Your task to perform on an android device: turn on the 12-hour format for clock Image 0: 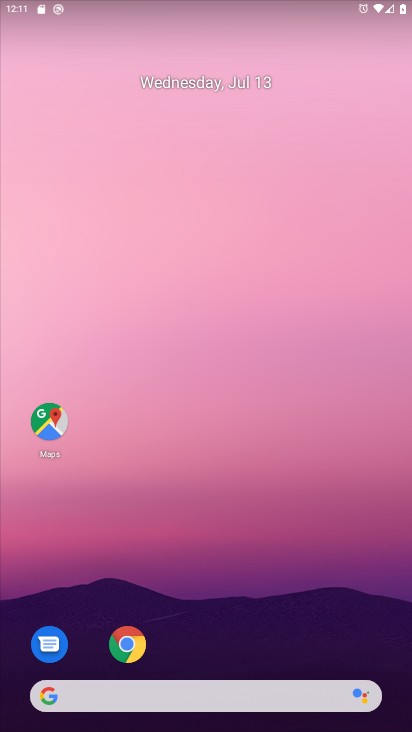
Step 0: drag from (282, 711) to (193, 302)
Your task to perform on an android device: turn on the 12-hour format for clock Image 1: 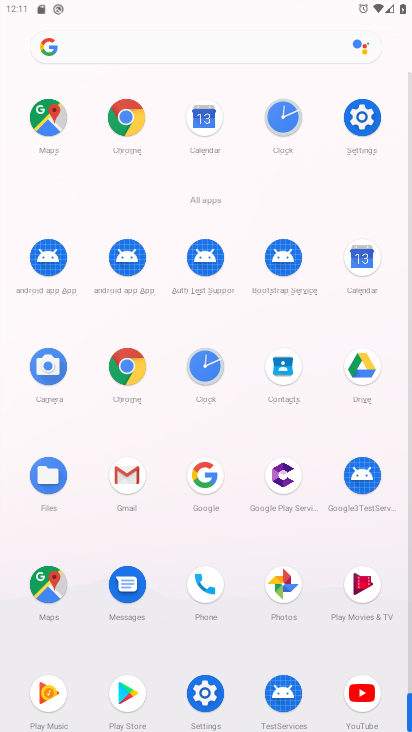
Step 1: click (203, 365)
Your task to perform on an android device: turn on the 12-hour format for clock Image 2: 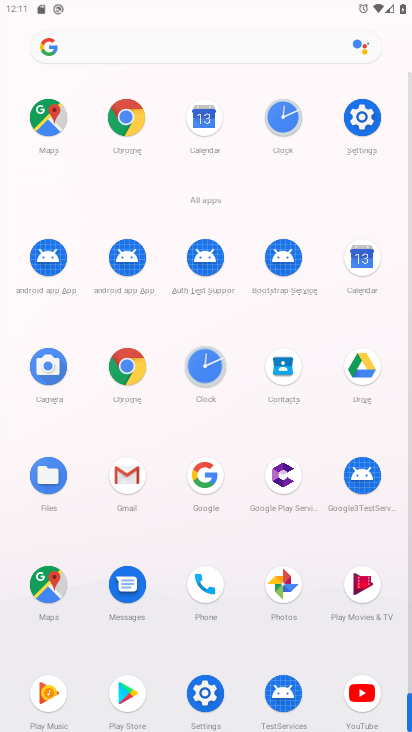
Step 2: click (203, 365)
Your task to perform on an android device: turn on the 12-hour format for clock Image 3: 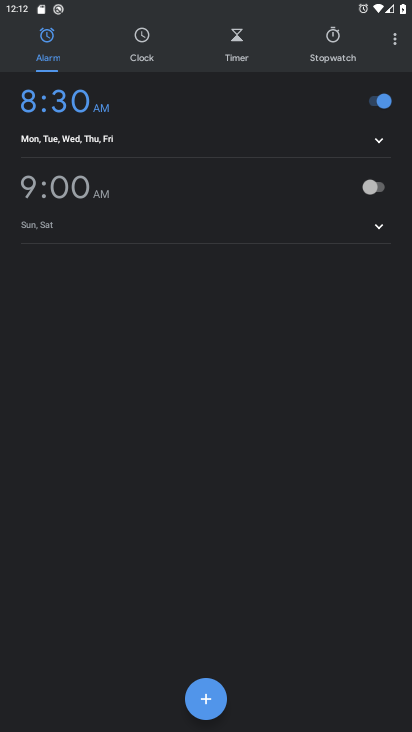
Step 3: click (390, 36)
Your task to perform on an android device: turn on the 12-hour format for clock Image 4: 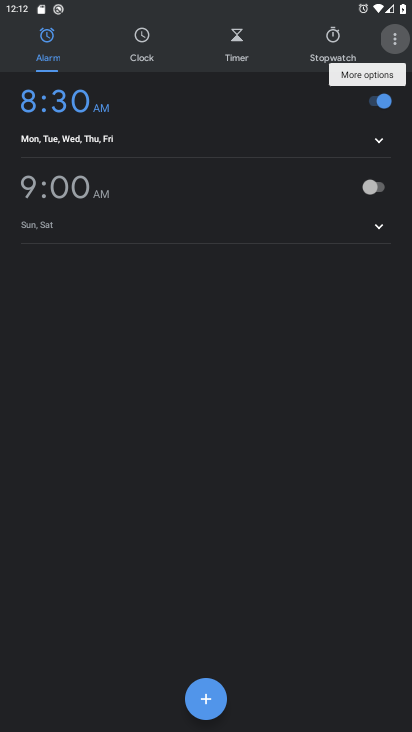
Step 4: click (394, 39)
Your task to perform on an android device: turn on the 12-hour format for clock Image 5: 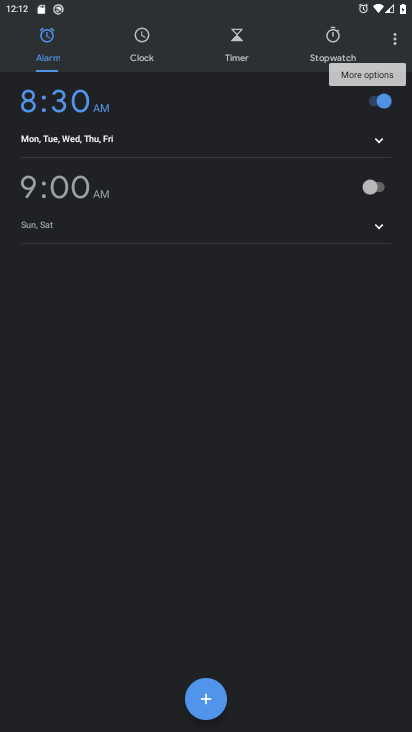
Step 5: click (394, 40)
Your task to perform on an android device: turn on the 12-hour format for clock Image 6: 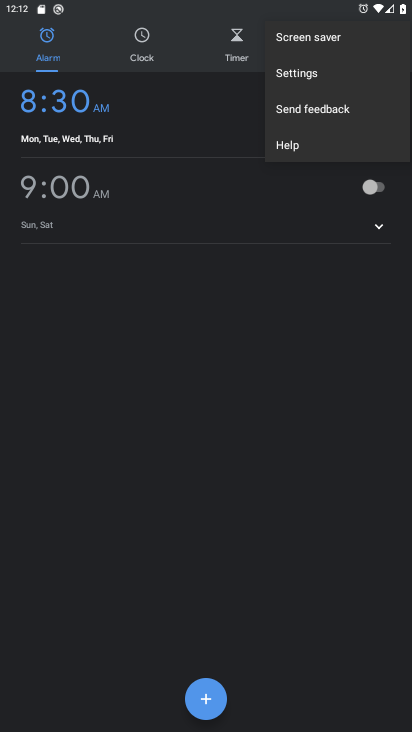
Step 6: click (394, 40)
Your task to perform on an android device: turn on the 12-hour format for clock Image 7: 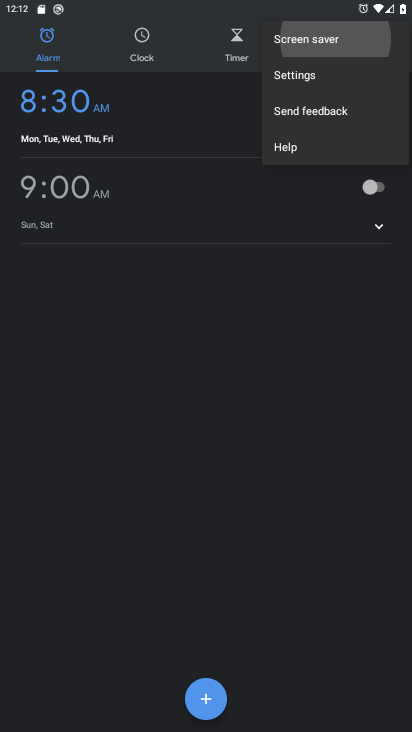
Step 7: click (394, 40)
Your task to perform on an android device: turn on the 12-hour format for clock Image 8: 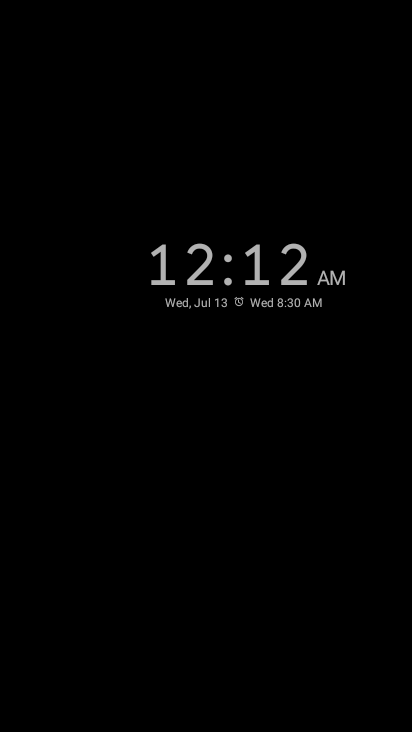
Step 8: press back button
Your task to perform on an android device: turn on the 12-hour format for clock Image 9: 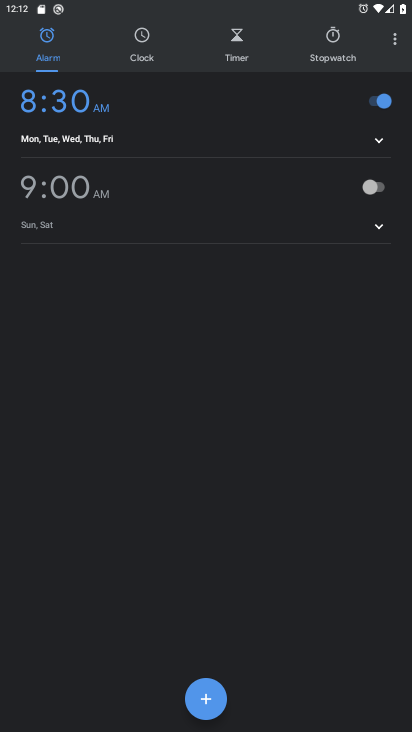
Step 9: drag from (395, 36) to (290, 71)
Your task to perform on an android device: turn on the 12-hour format for clock Image 10: 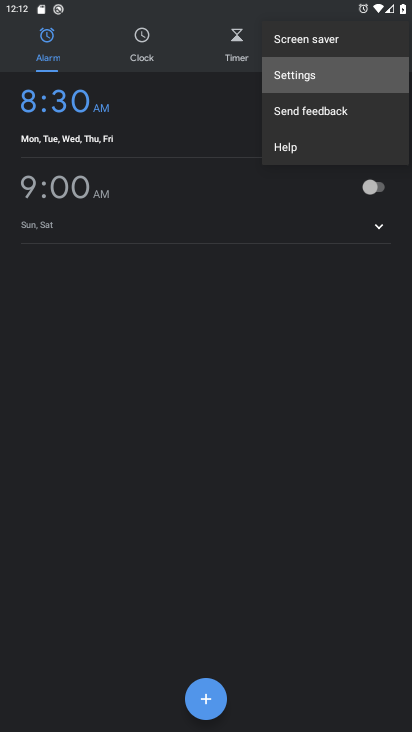
Step 10: click (290, 71)
Your task to perform on an android device: turn on the 12-hour format for clock Image 11: 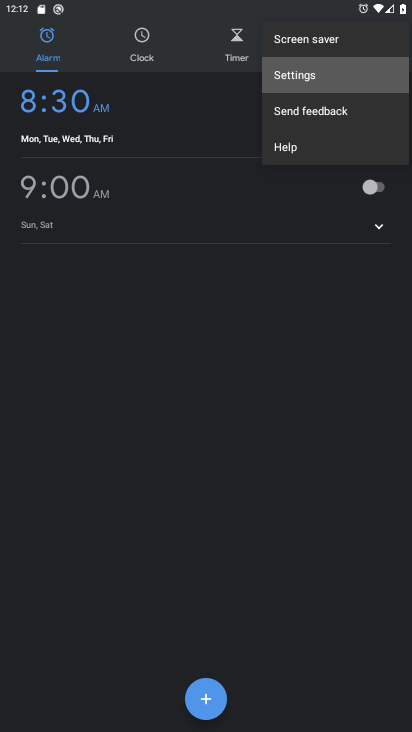
Step 11: click (290, 71)
Your task to perform on an android device: turn on the 12-hour format for clock Image 12: 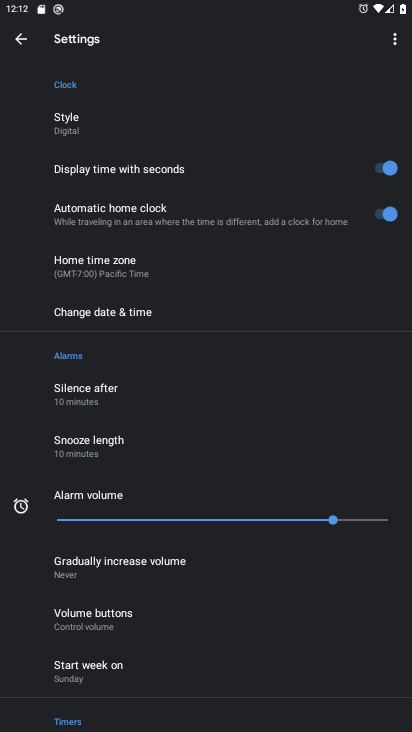
Step 12: drag from (91, 605) to (111, 202)
Your task to perform on an android device: turn on the 12-hour format for clock Image 13: 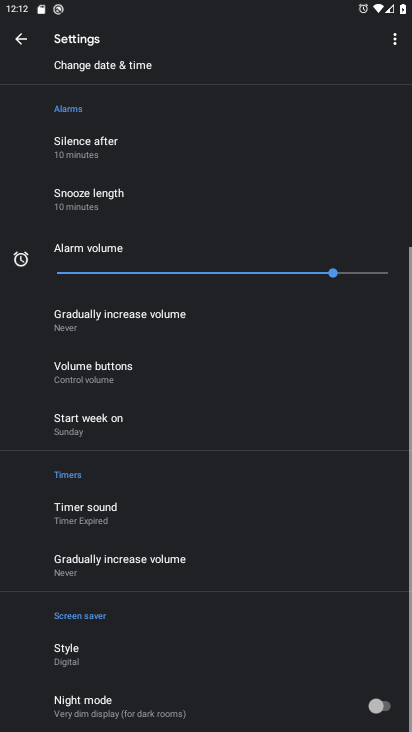
Step 13: drag from (103, 446) to (112, 260)
Your task to perform on an android device: turn on the 12-hour format for clock Image 14: 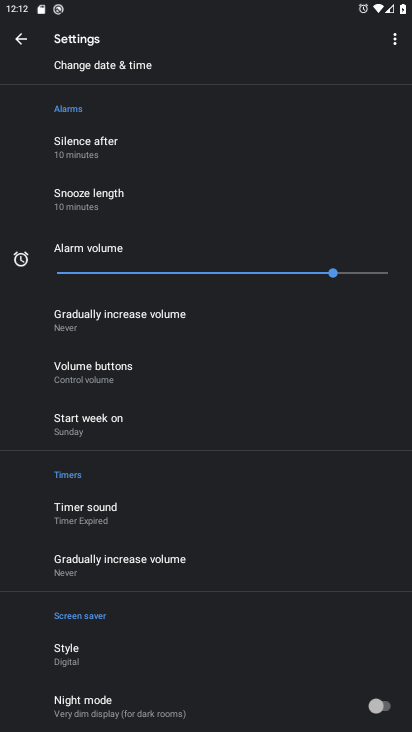
Step 14: click (107, 57)
Your task to perform on an android device: turn on the 12-hour format for clock Image 15: 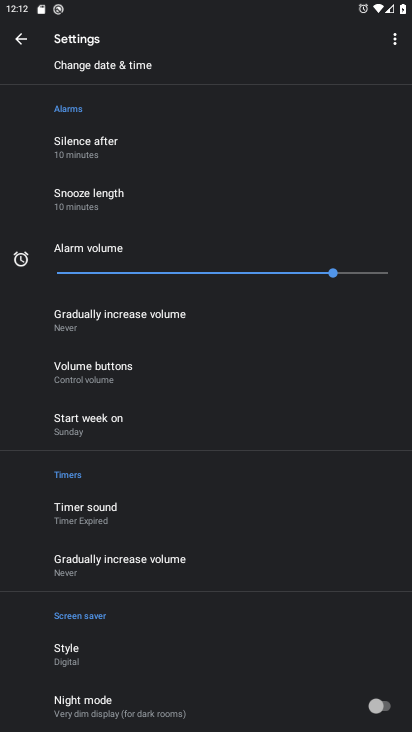
Step 15: click (122, 64)
Your task to perform on an android device: turn on the 12-hour format for clock Image 16: 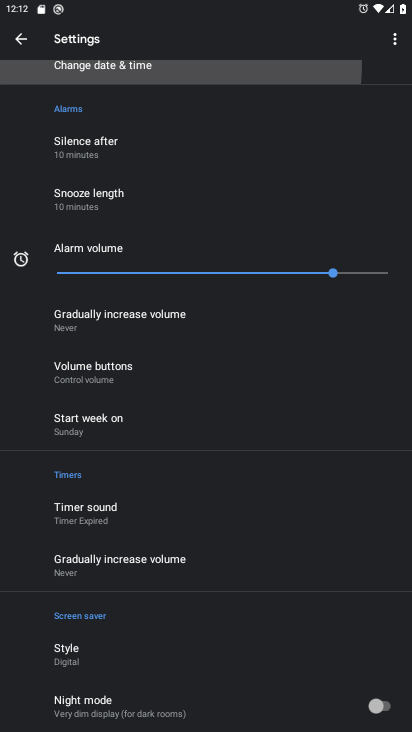
Step 16: click (122, 64)
Your task to perform on an android device: turn on the 12-hour format for clock Image 17: 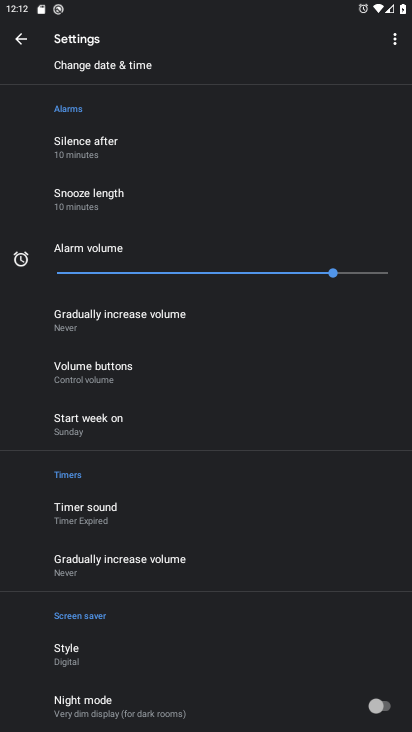
Step 17: click (122, 64)
Your task to perform on an android device: turn on the 12-hour format for clock Image 18: 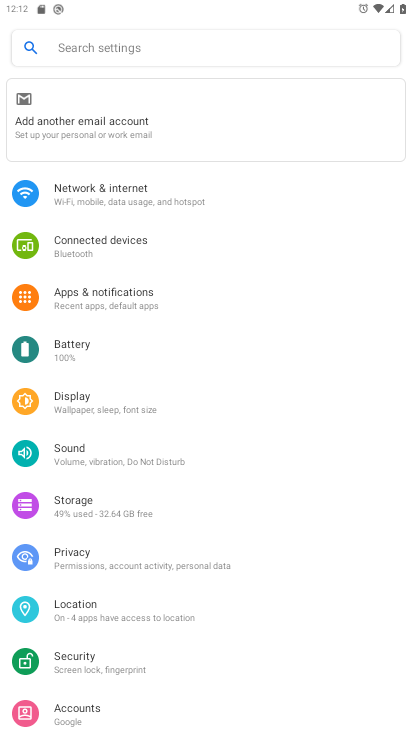
Step 18: task complete